Your task to perform on an android device: Go to display settings Image 0: 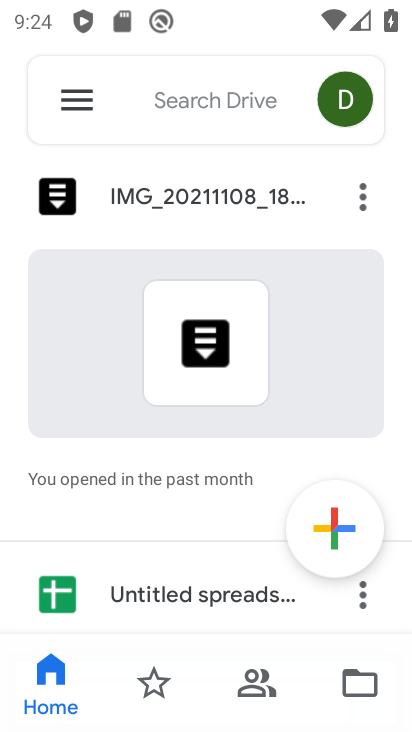
Step 0: press home button
Your task to perform on an android device: Go to display settings Image 1: 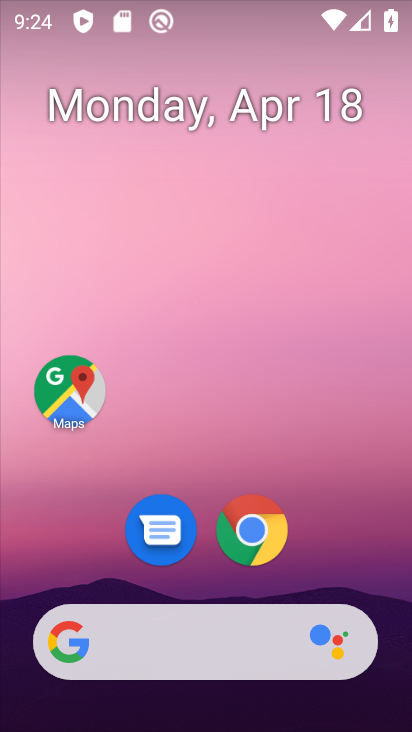
Step 1: drag from (329, 545) to (315, 30)
Your task to perform on an android device: Go to display settings Image 2: 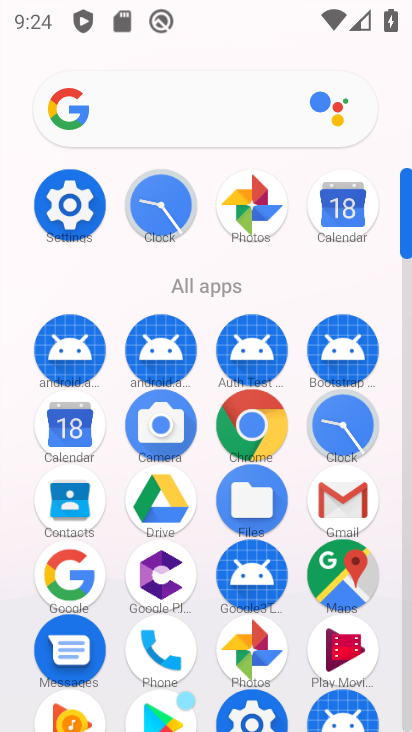
Step 2: click (61, 204)
Your task to perform on an android device: Go to display settings Image 3: 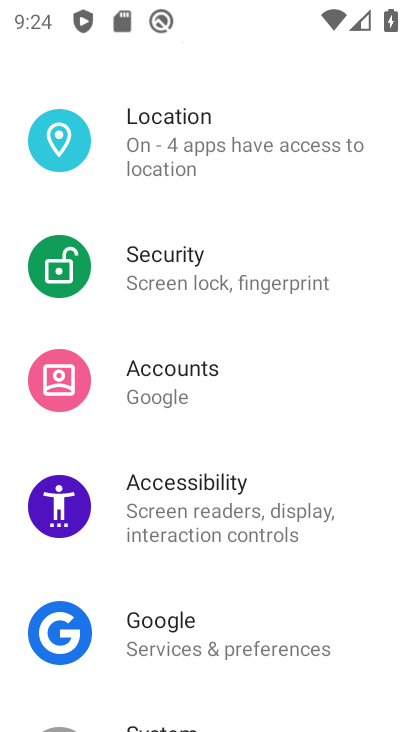
Step 3: drag from (344, 298) to (334, 126)
Your task to perform on an android device: Go to display settings Image 4: 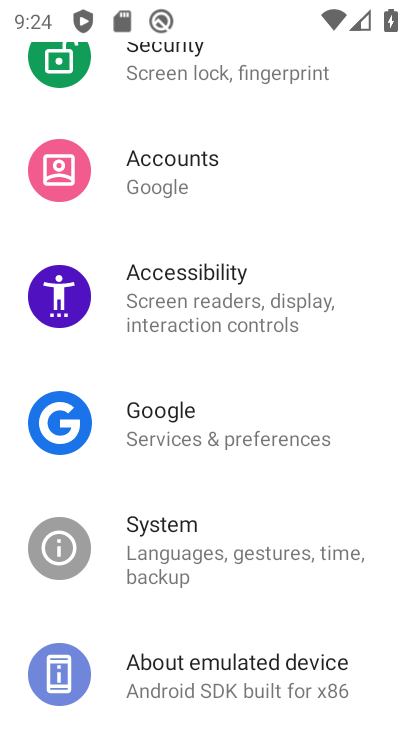
Step 4: drag from (330, 140) to (357, 561)
Your task to perform on an android device: Go to display settings Image 5: 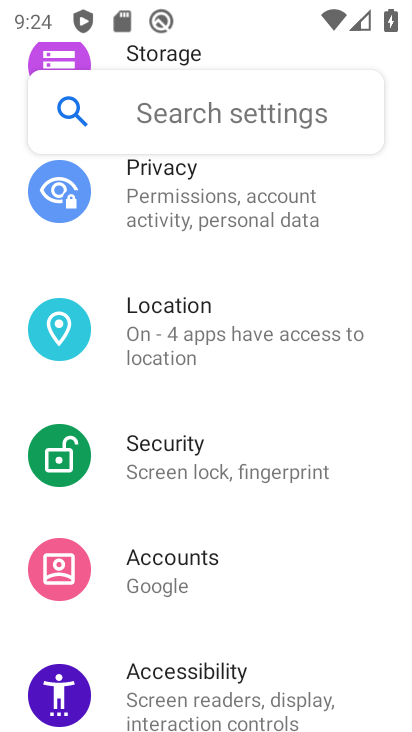
Step 5: drag from (362, 290) to (341, 541)
Your task to perform on an android device: Go to display settings Image 6: 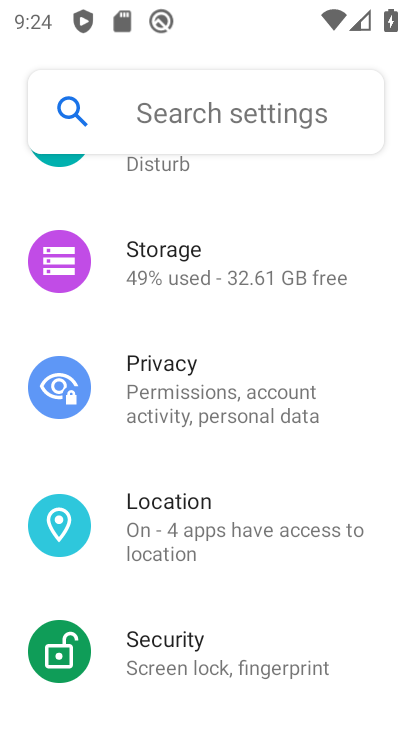
Step 6: drag from (347, 270) to (337, 518)
Your task to perform on an android device: Go to display settings Image 7: 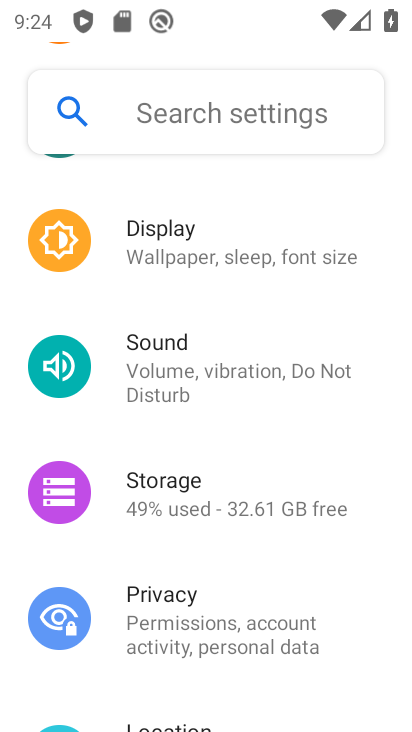
Step 7: click (151, 251)
Your task to perform on an android device: Go to display settings Image 8: 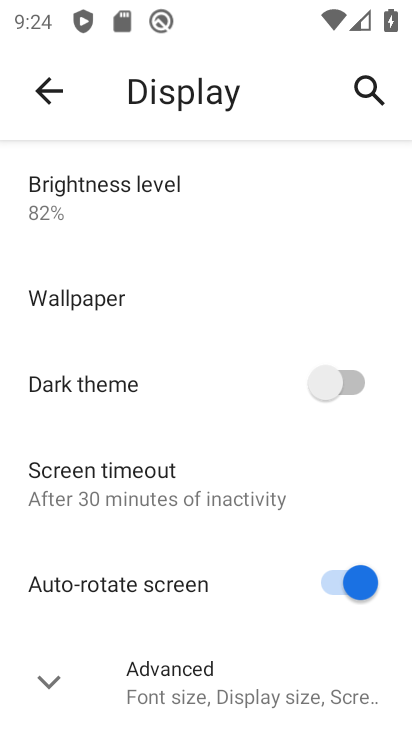
Step 8: drag from (239, 561) to (241, 322)
Your task to perform on an android device: Go to display settings Image 9: 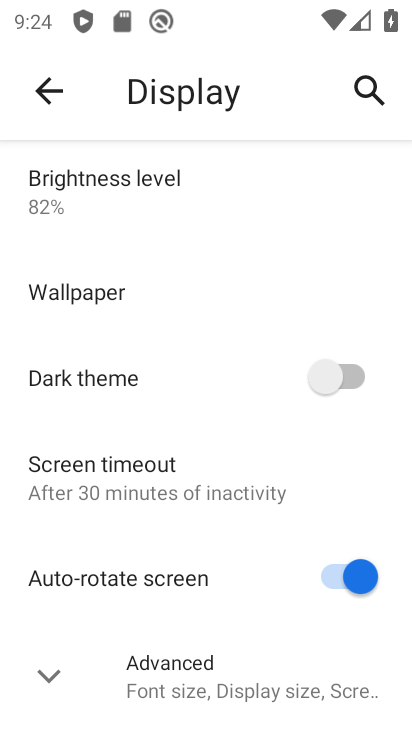
Step 9: click (40, 693)
Your task to perform on an android device: Go to display settings Image 10: 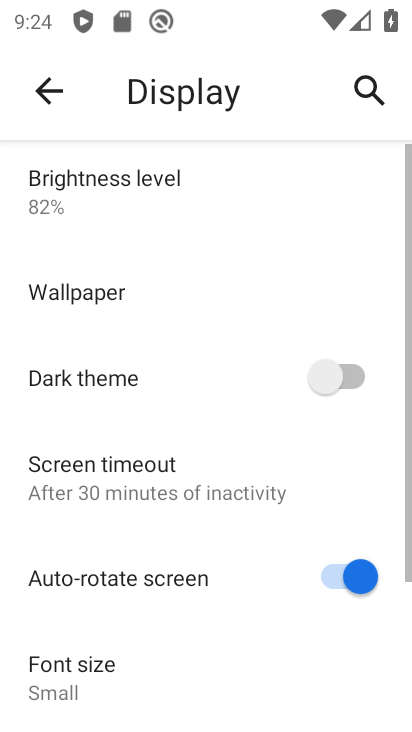
Step 10: task complete